Your task to perform on an android device: turn on data saver in the chrome app Image 0: 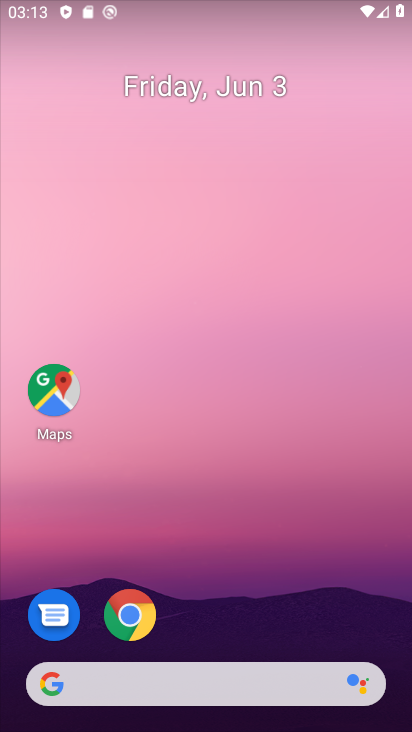
Step 0: drag from (241, 617) to (192, 159)
Your task to perform on an android device: turn on data saver in the chrome app Image 1: 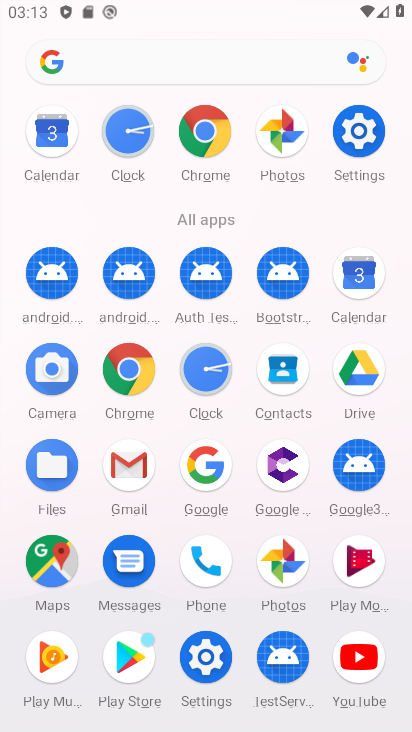
Step 1: click (211, 146)
Your task to perform on an android device: turn on data saver in the chrome app Image 2: 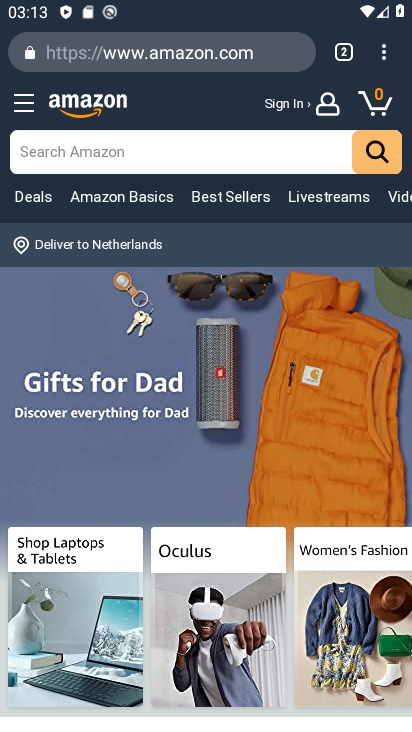
Step 2: click (386, 69)
Your task to perform on an android device: turn on data saver in the chrome app Image 3: 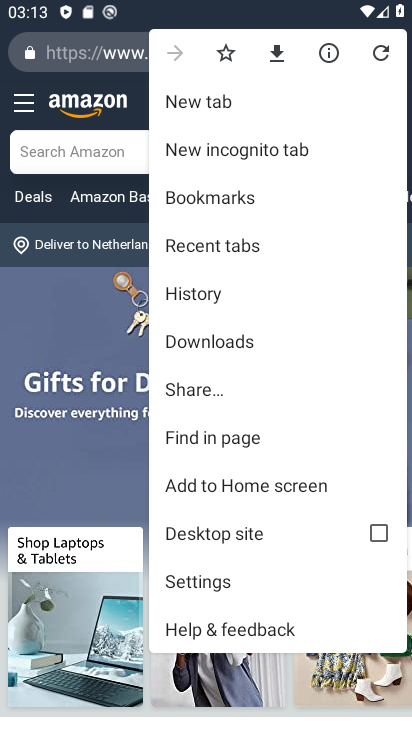
Step 3: click (241, 580)
Your task to perform on an android device: turn on data saver in the chrome app Image 4: 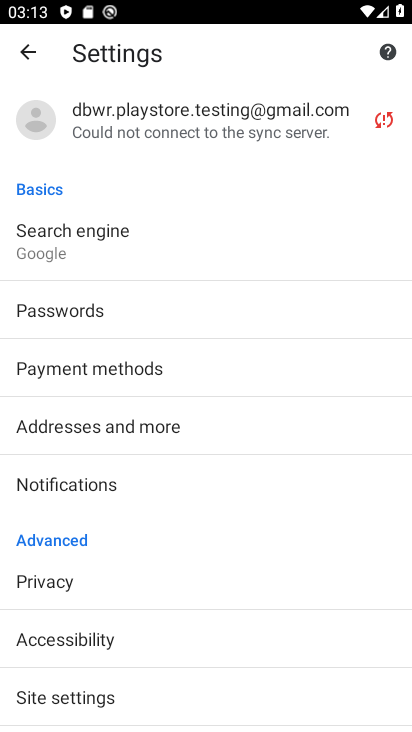
Step 4: drag from (210, 674) to (202, 466)
Your task to perform on an android device: turn on data saver in the chrome app Image 5: 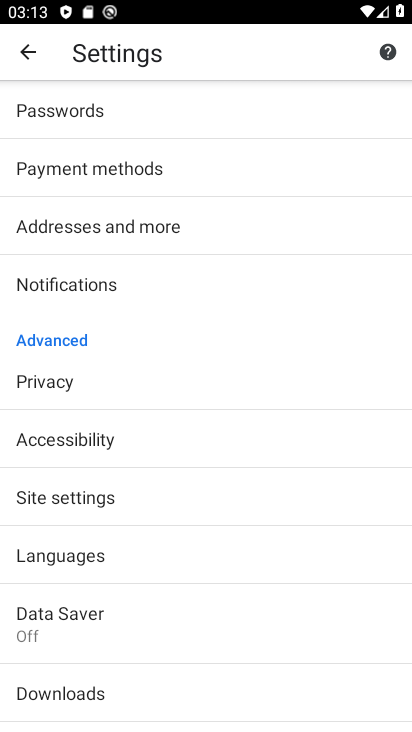
Step 5: click (175, 617)
Your task to perform on an android device: turn on data saver in the chrome app Image 6: 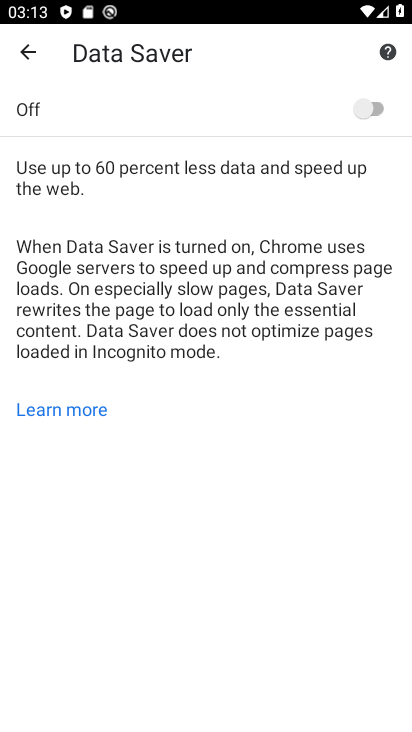
Step 6: click (366, 129)
Your task to perform on an android device: turn on data saver in the chrome app Image 7: 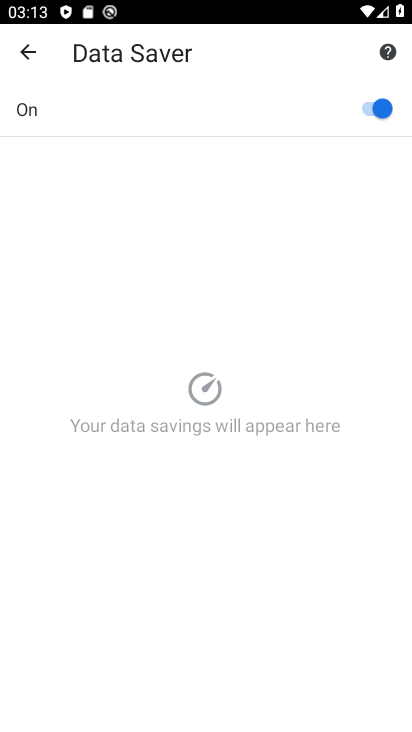
Step 7: task complete